Your task to perform on an android device: refresh tabs in the chrome app Image 0: 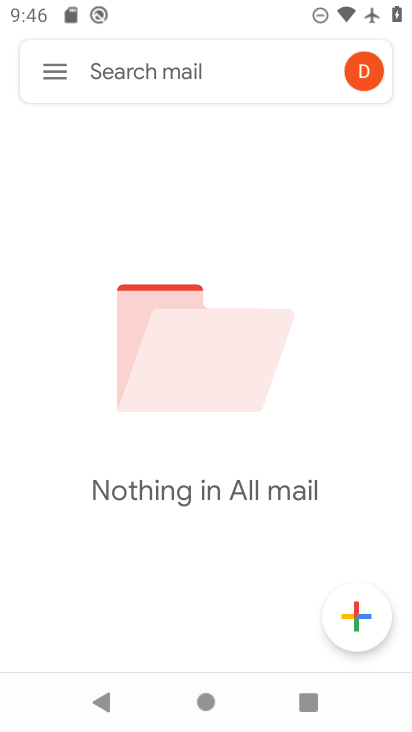
Step 0: press home button
Your task to perform on an android device: refresh tabs in the chrome app Image 1: 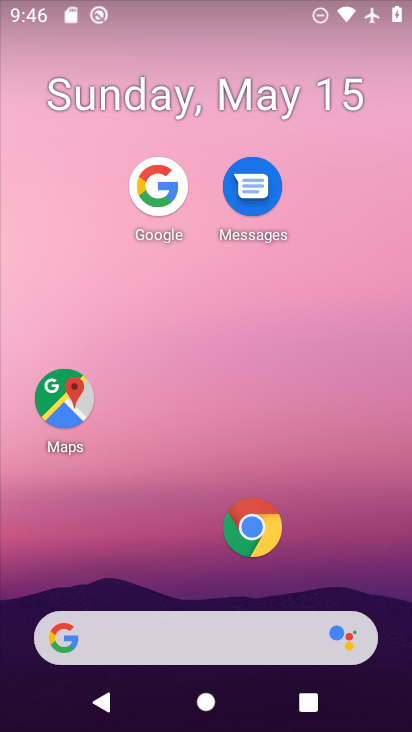
Step 1: click (248, 534)
Your task to perform on an android device: refresh tabs in the chrome app Image 2: 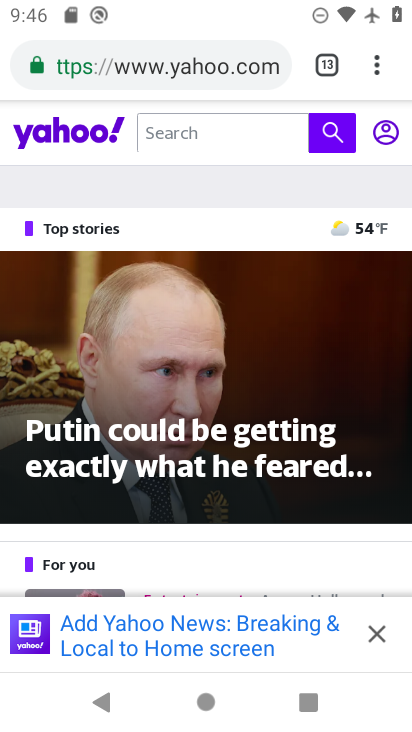
Step 2: click (370, 83)
Your task to perform on an android device: refresh tabs in the chrome app Image 3: 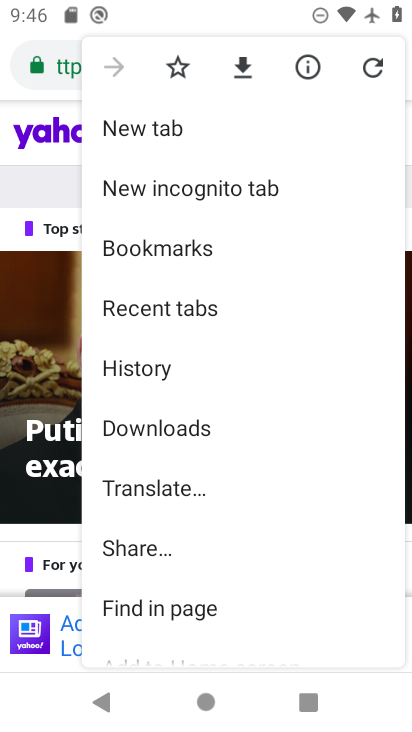
Step 3: click (374, 76)
Your task to perform on an android device: refresh tabs in the chrome app Image 4: 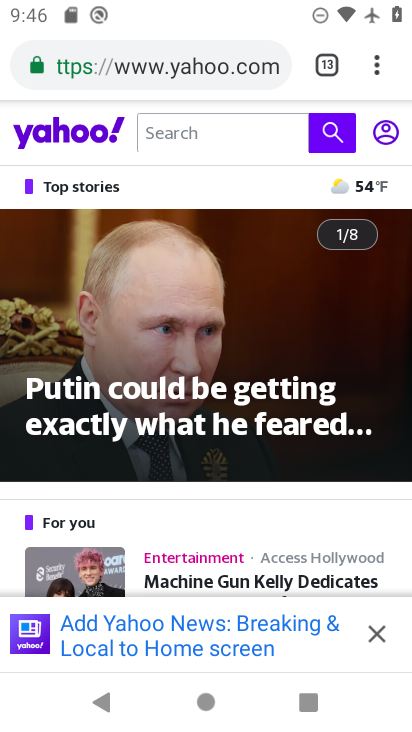
Step 4: task complete